Your task to perform on an android device: Open calendar and show me the third week of next month Image 0: 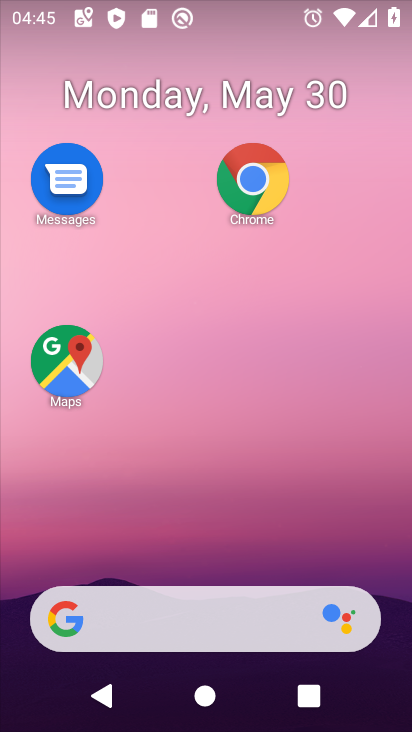
Step 0: drag from (213, 553) to (227, 86)
Your task to perform on an android device: Open calendar and show me the third week of next month Image 1: 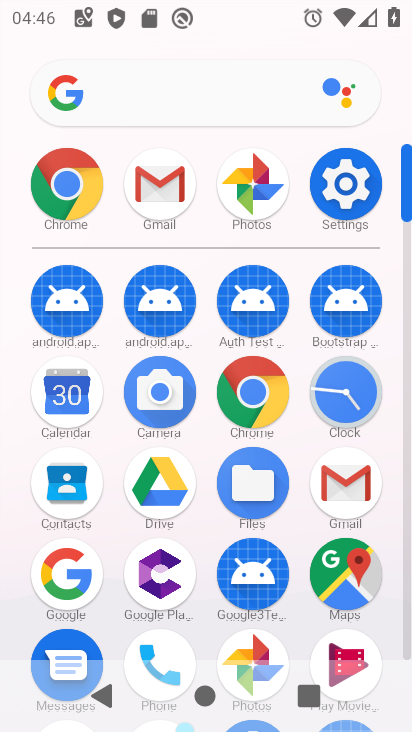
Step 1: click (75, 432)
Your task to perform on an android device: Open calendar and show me the third week of next month Image 2: 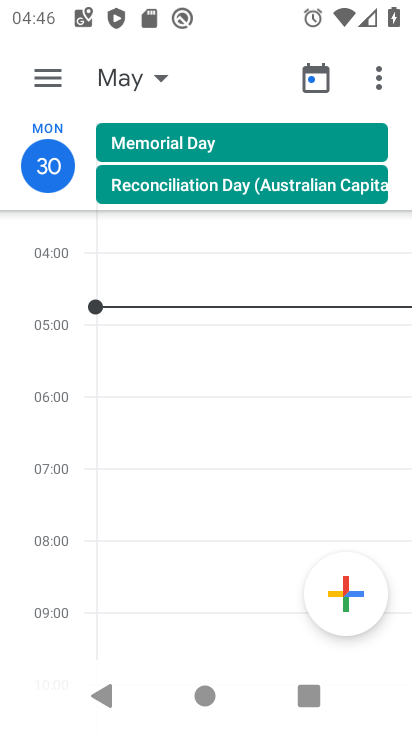
Step 2: click (40, 81)
Your task to perform on an android device: Open calendar and show me the third week of next month Image 3: 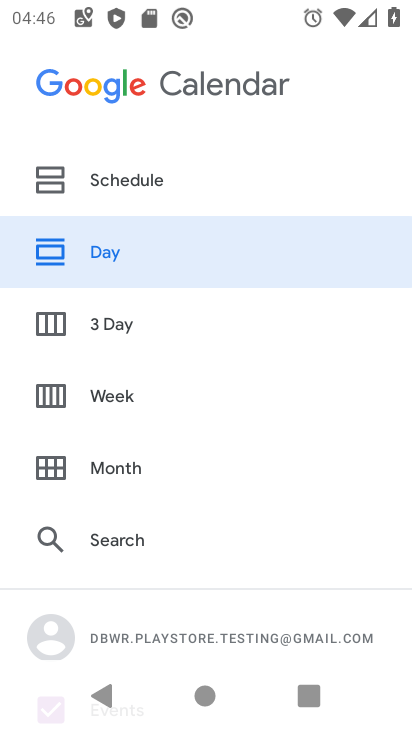
Step 3: click (124, 405)
Your task to perform on an android device: Open calendar and show me the third week of next month Image 4: 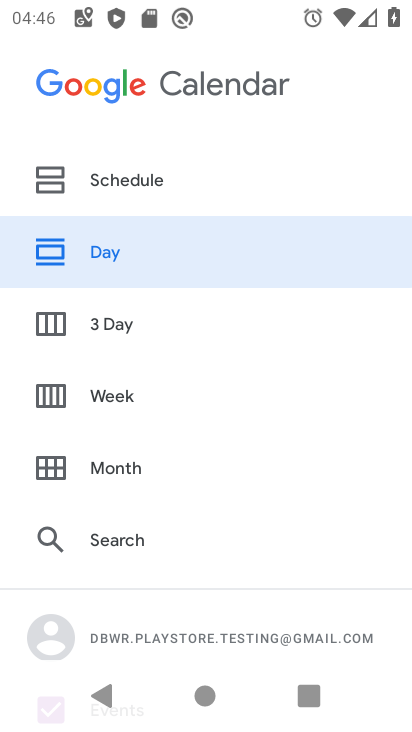
Step 4: click (121, 401)
Your task to perform on an android device: Open calendar and show me the third week of next month Image 5: 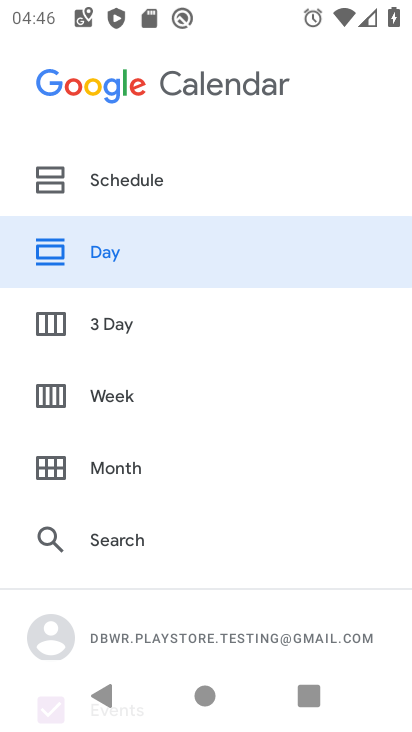
Step 5: click (121, 394)
Your task to perform on an android device: Open calendar and show me the third week of next month Image 6: 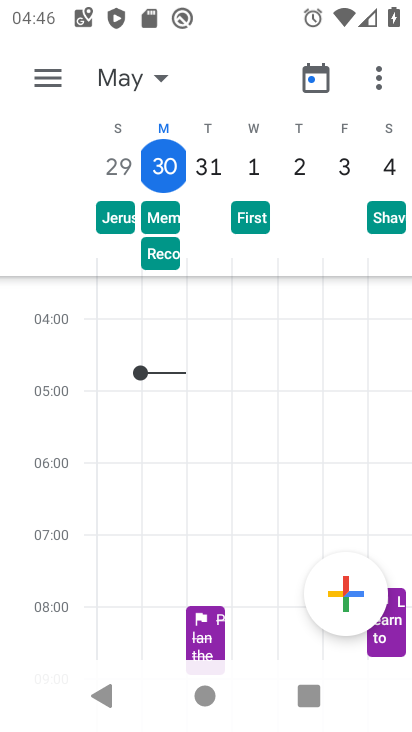
Step 6: click (109, 92)
Your task to perform on an android device: Open calendar and show me the third week of next month Image 7: 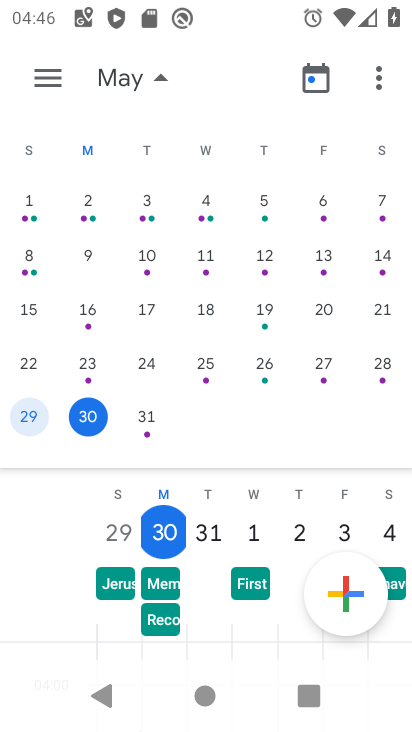
Step 7: drag from (310, 280) to (50, 274)
Your task to perform on an android device: Open calendar and show me the third week of next month Image 8: 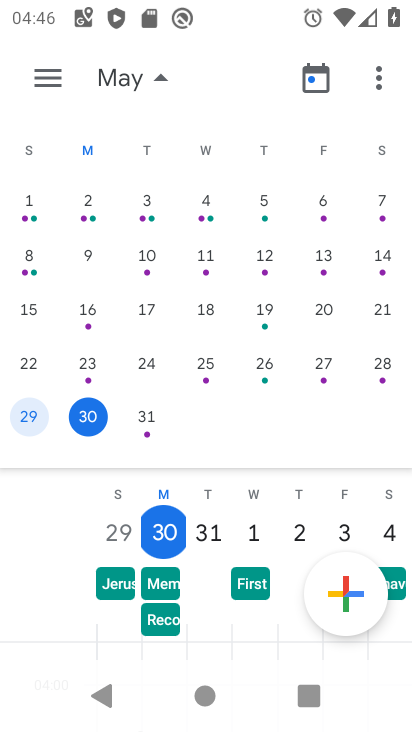
Step 8: click (16, 315)
Your task to perform on an android device: Open calendar and show me the third week of next month Image 9: 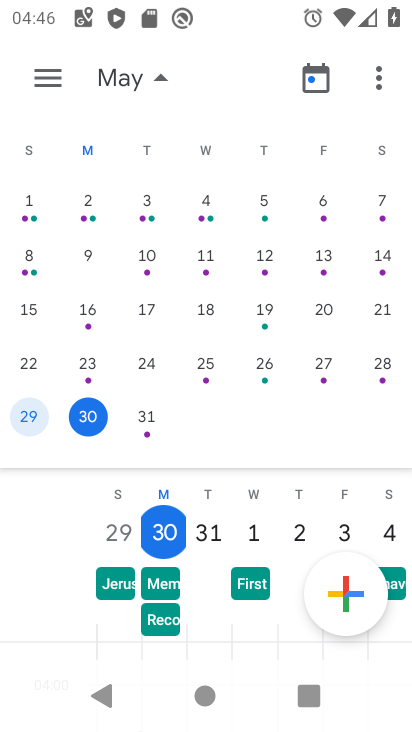
Step 9: click (16, 315)
Your task to perform on an android device: Open calendar and show me the third week of next month Image 10: 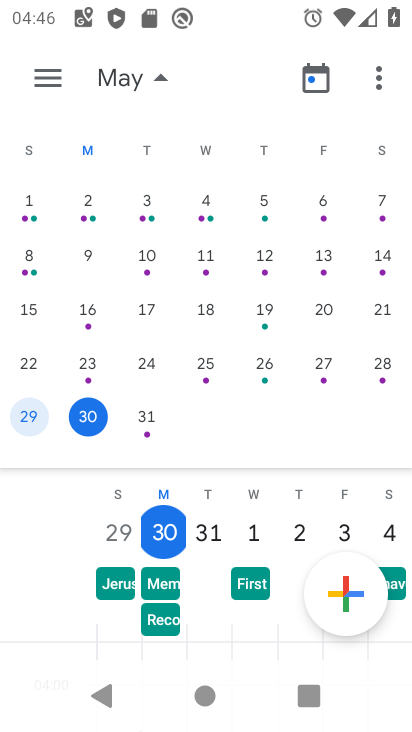
Step 10: drag from (363, 309) to (3, 284)
Your task to perform on an android device: Open calendar and show me the third week of next month Image 11: 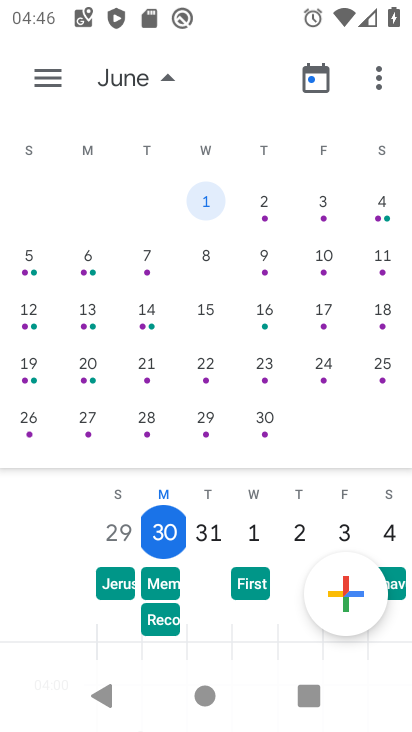
Step 11: click (32, 370)
Your task to perform on an android device: Open calendar and show me the third week of next month Image 12: 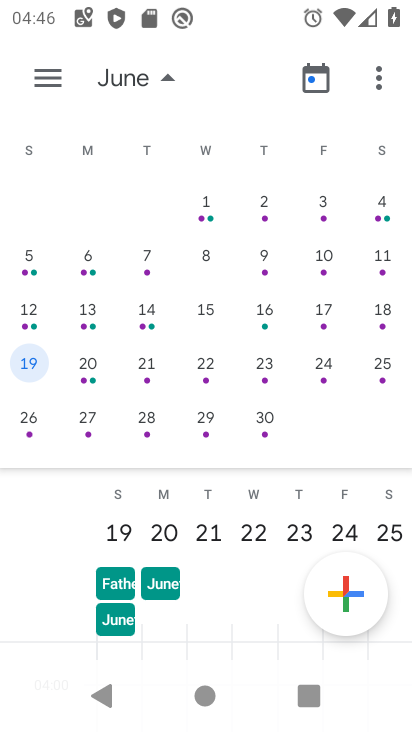
Step 12: task complete